Your task to perform on an android device: Open Yahoo.com Image 0: 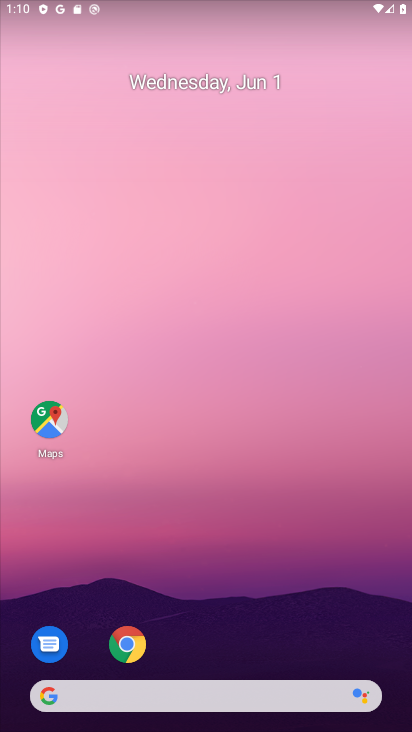
Step 0: press home button
Your task to perform on an android device: Open Yahoo.com Image 1: 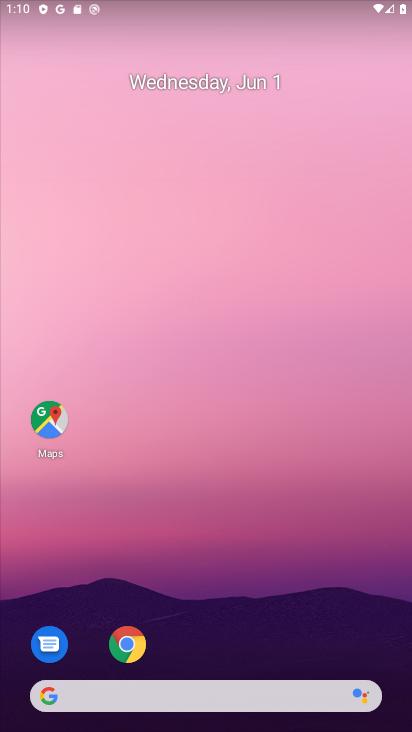
Step 1: click (137, 646)
Your task to perform on an android device: Open Yahoo.com Image 2: 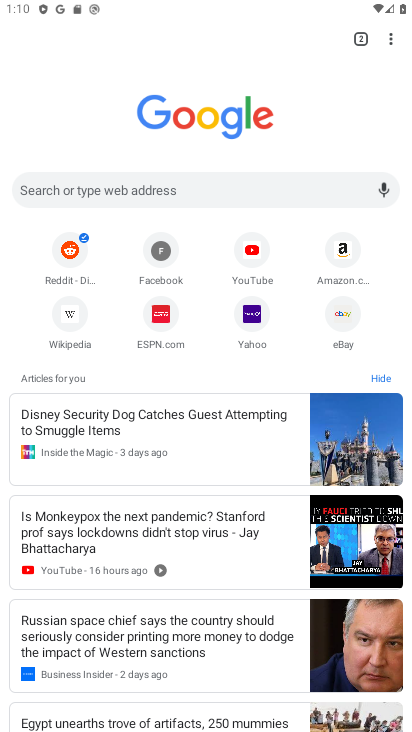
Step 2: click (252, 315)
Your task to perform on an android device: Open Yahoo.com Image 3: 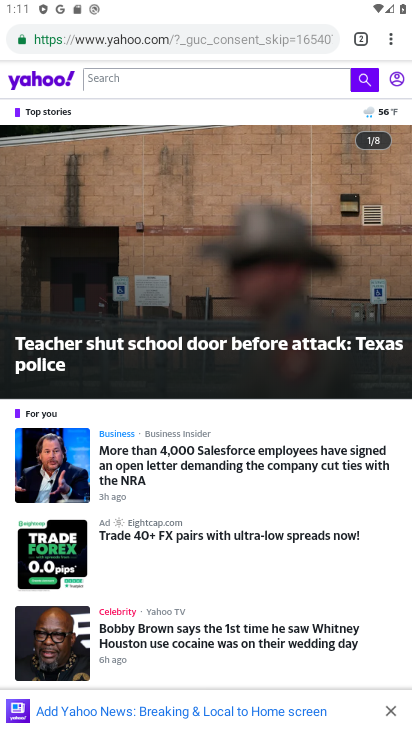
Step 3: task complete